Your task to perform on an android device: remove spam from my inbox in the gmail app Image 0: 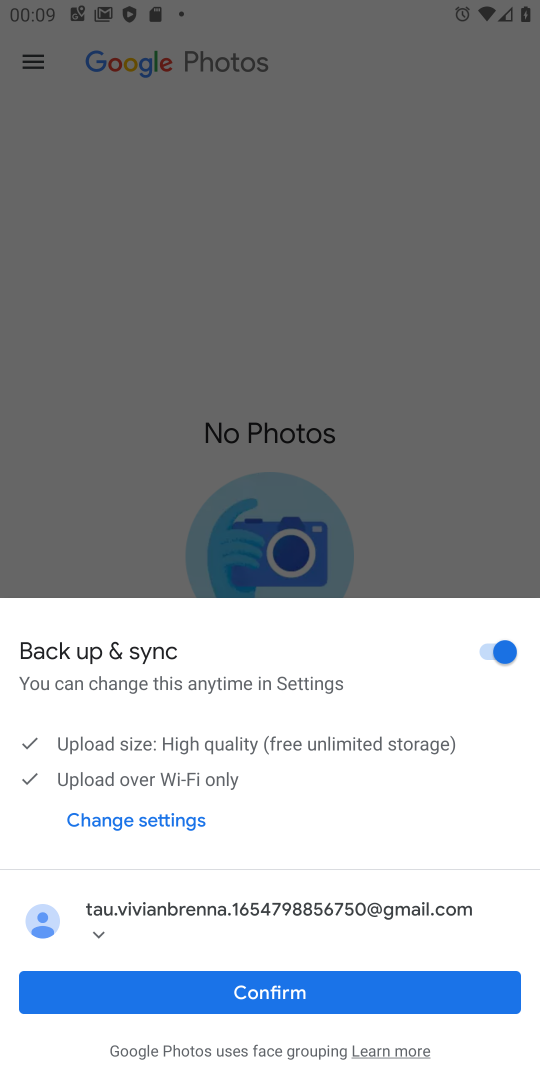
Step 0: press home button
Your task to perform on an android device: remove spam from my inbox in the gmail app Image 1: 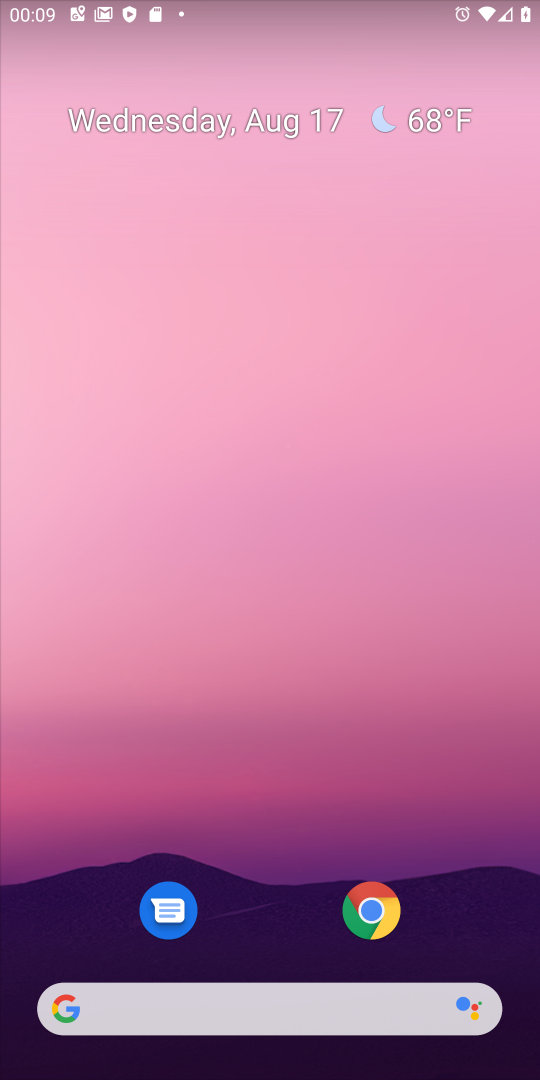
Step 1: drag from (270, 934) to (306, 171)
Your task to perform on an android device: remove spam from my inbox in the gmail app Image 2: 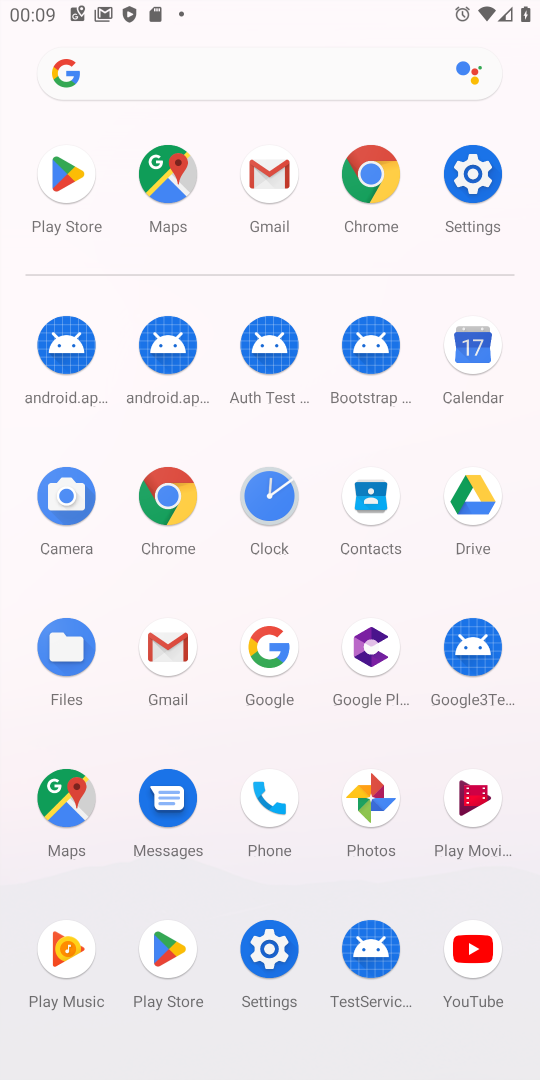
Step 2: click (180, 643)
Your task to perform on an android device: remove spam from my inbox in the gmail app Image 3: 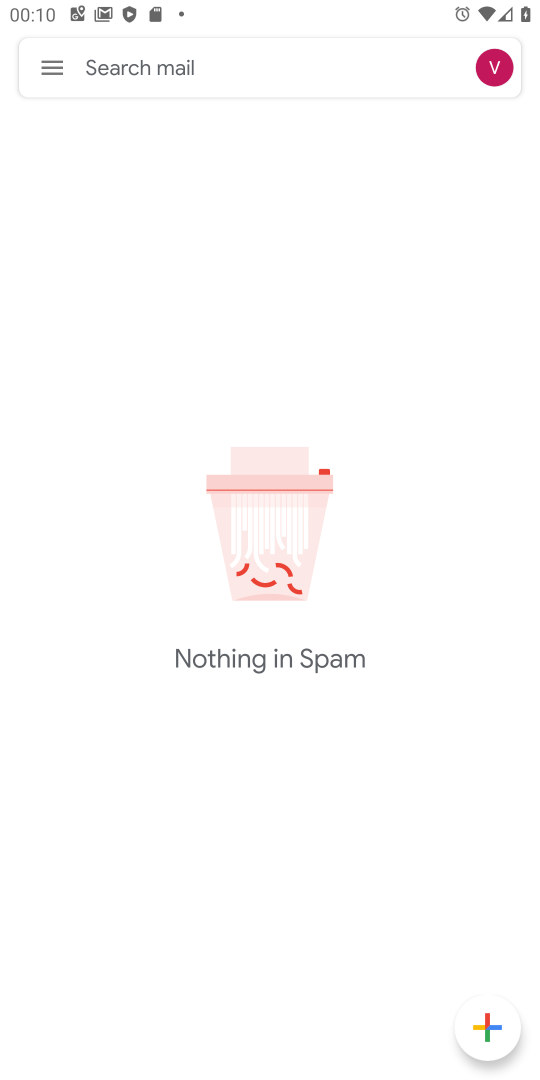
Step 3: click (54, 60)
Your task to perform on an android device: remove spam from my inbox in the gmail app Image 4: 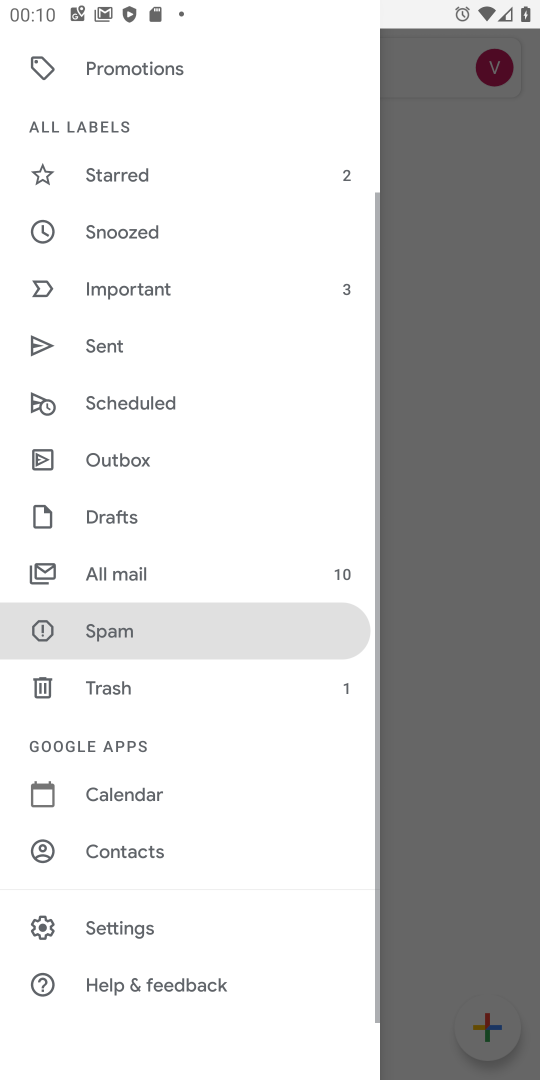
Step 4: drag from (183, 181) to (122, 842)
Your task to perform on an android device: remove spam from my inbox in the gmail app Image 5: 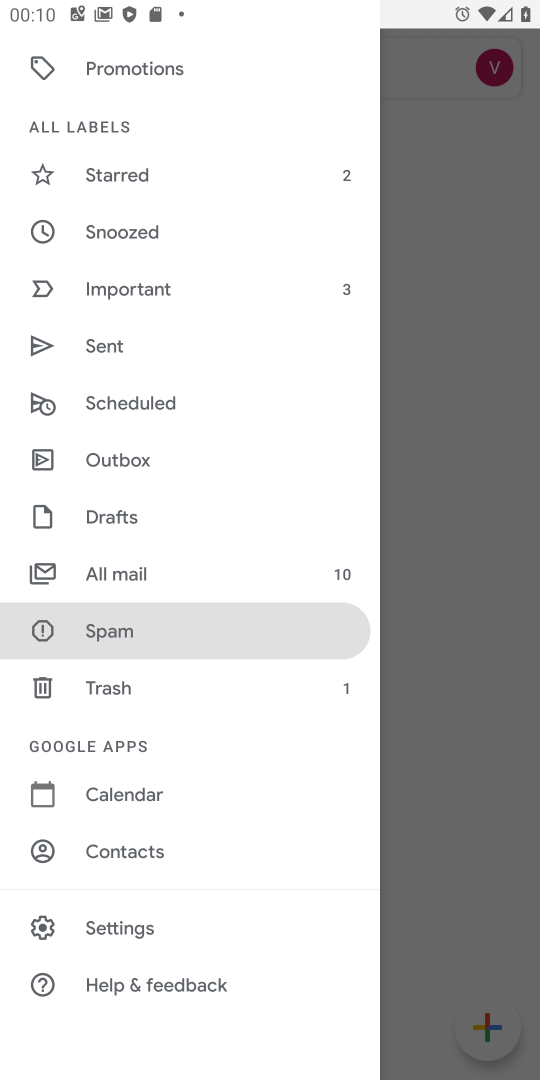
Step 5: drag from (101, 221) to (119, 976)
Your task to perform on an android device: remove spam from my inbox in the gmail app Image 6: 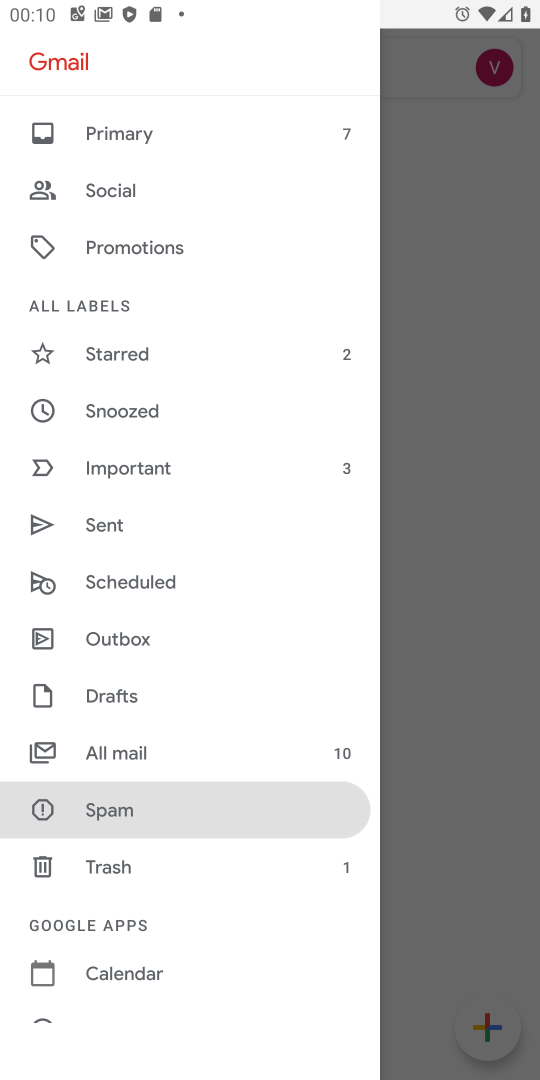
Step 6: click (133, 132)
Your task to perform on an android device: remove spam from my inbox in the gmail app Image 7: 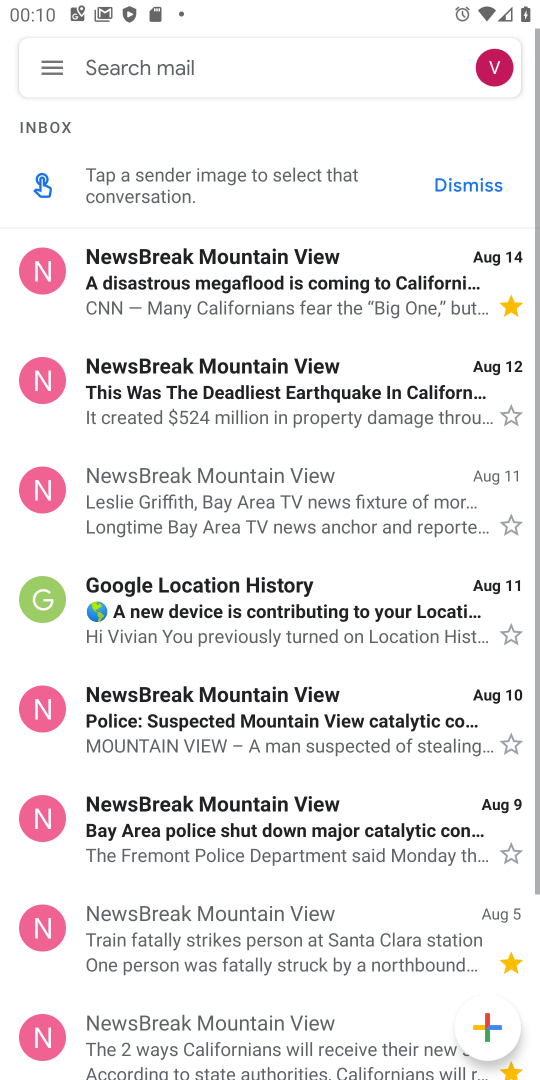
Step 7: task complete